Your task to perform on an android device: open a bookmark in the chrome app Image 0: 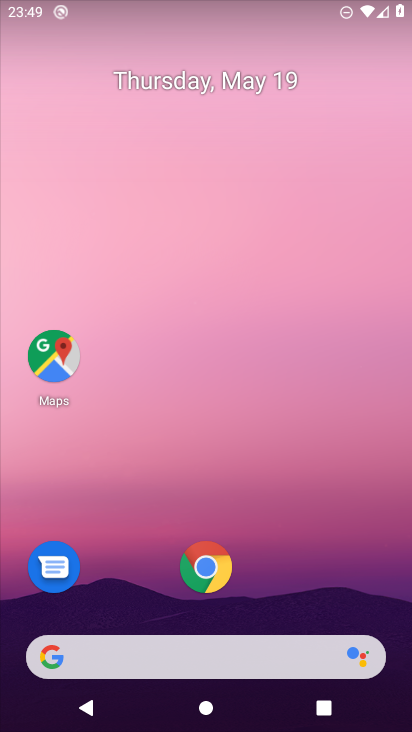
Step 0: drag from (252, 623) to (277, 1)
Your task to perform on an android device: open a bookmark in the chrome app Image 1: 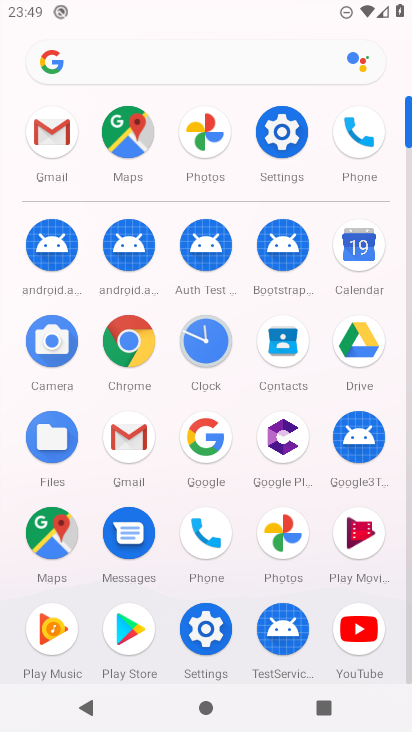
Step 1: click (125, 333)
Your task to perform on an android device: open a bookmark in the chrome app Image 2: 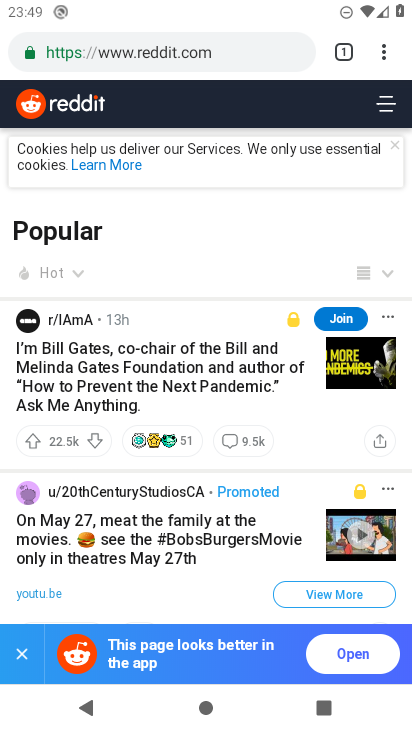
Step 2: click (380, 51)
Your task to perform on an android device: open a bookmark in the chrome app Image 3: 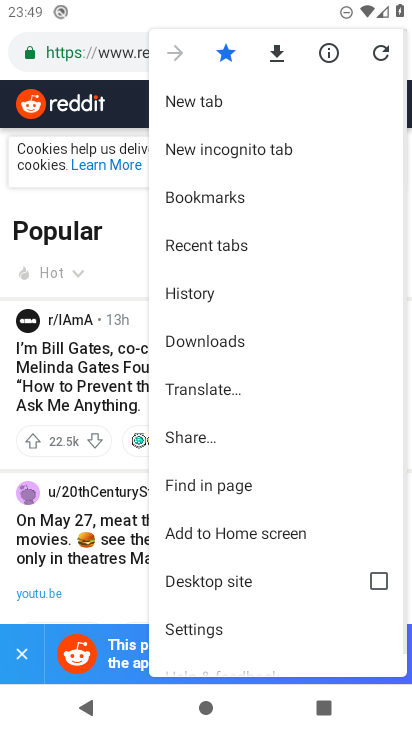
Step 3: click (245, 192)
Your task to perform on an android device: open a bookmark in the chrome app Image 4: 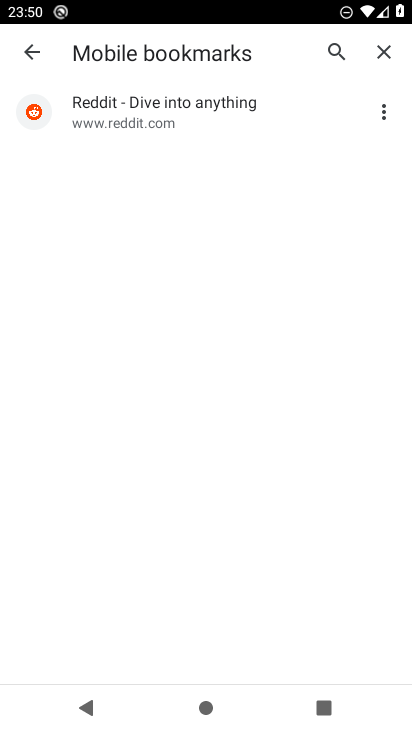
Step 4: click (203, 102)
Your task to perform on an android device: open a bookmark in the chrome app Image 5: 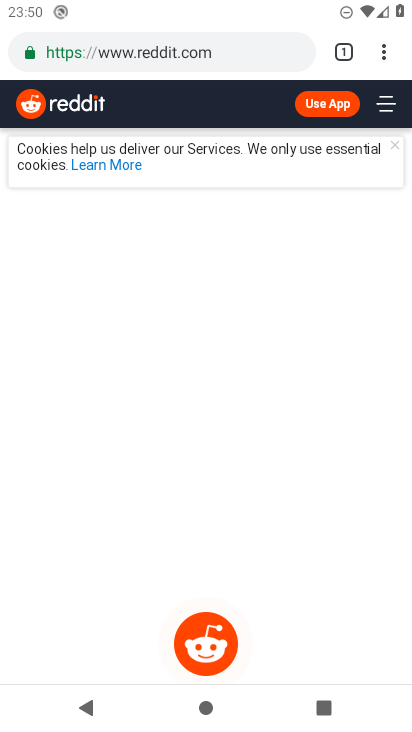
Step 5: task complete